Your task to perform on an android device: Google the capital of the United States Image 0: 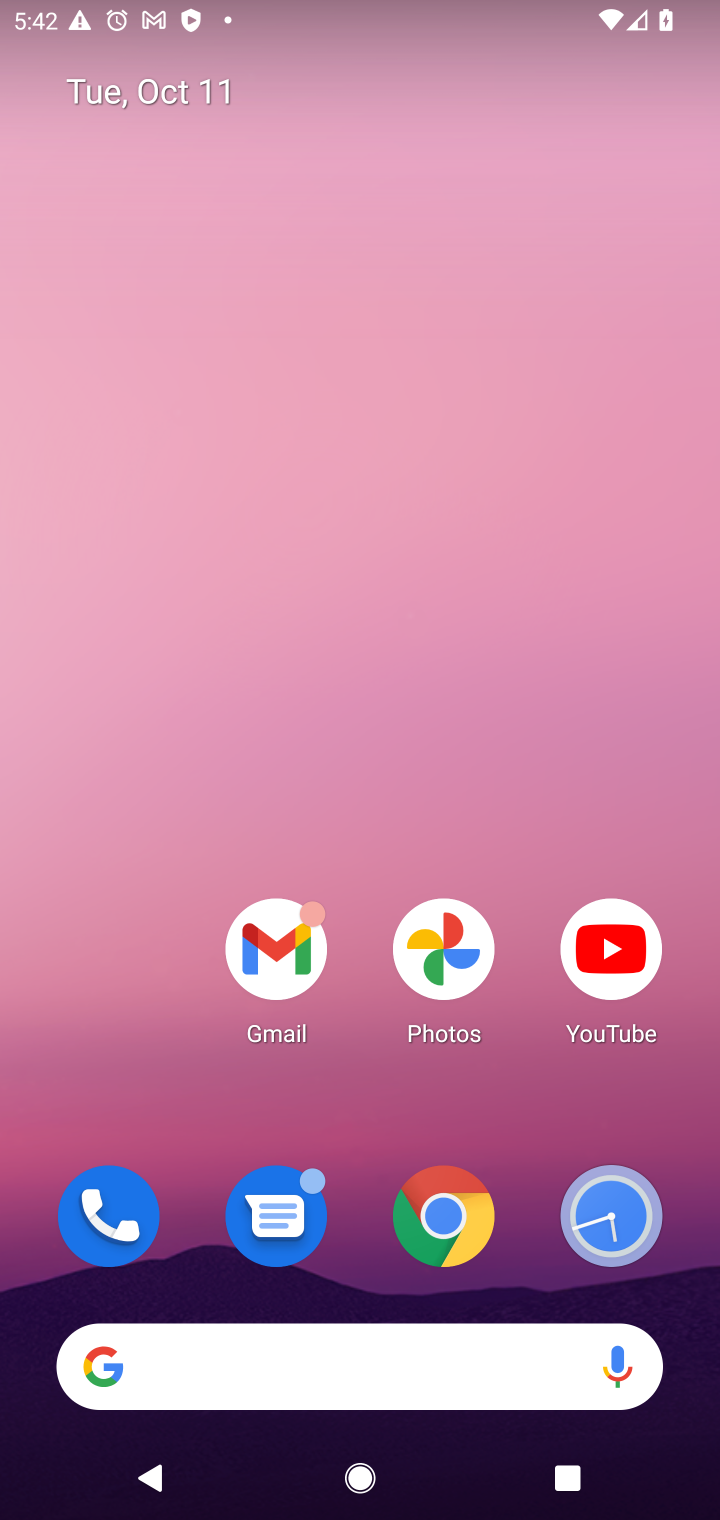
Step 0: click (444, 1219)
Your task to perform on an android device: Google the capital of the United States Image 1: 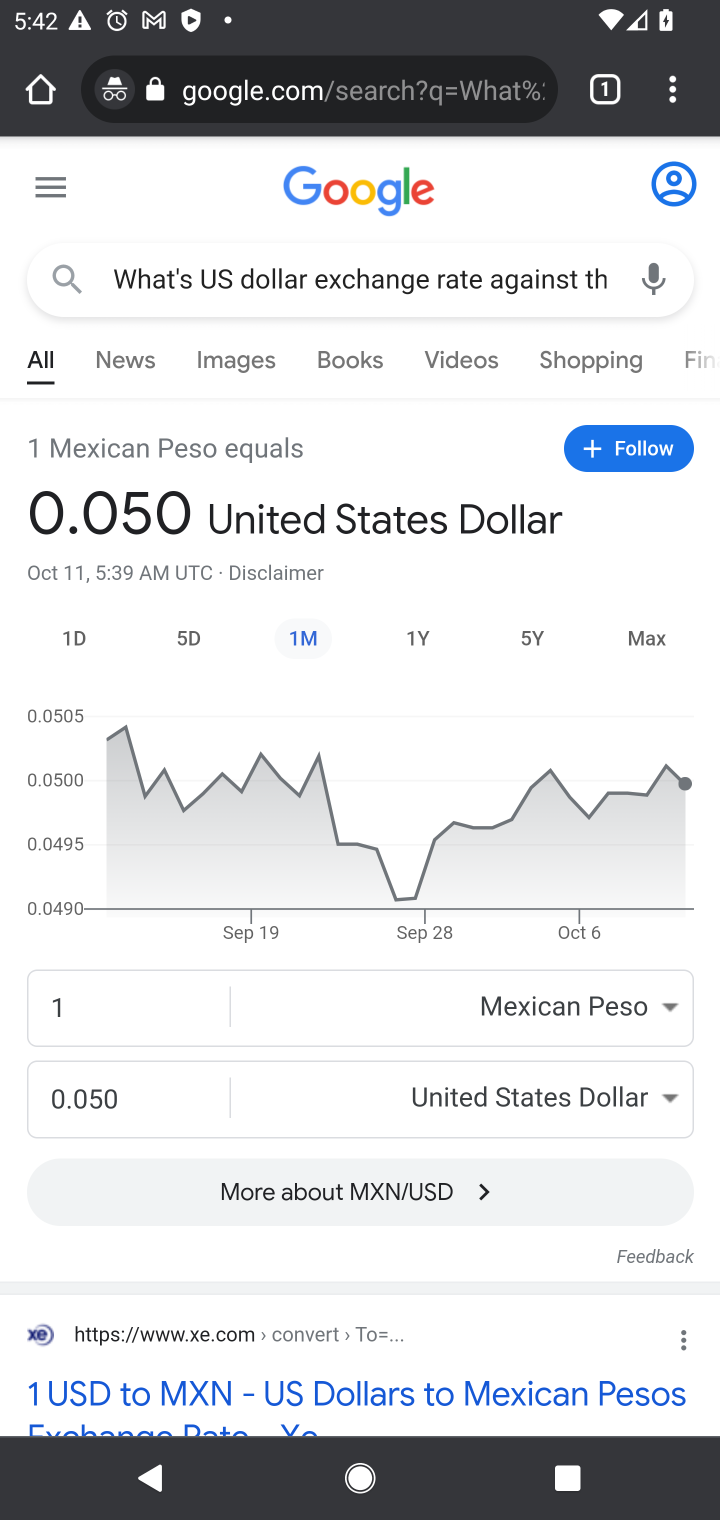
Step 1: click (383, 282)
Your task to perform on an android device: Google the capital of the United States Image 2: 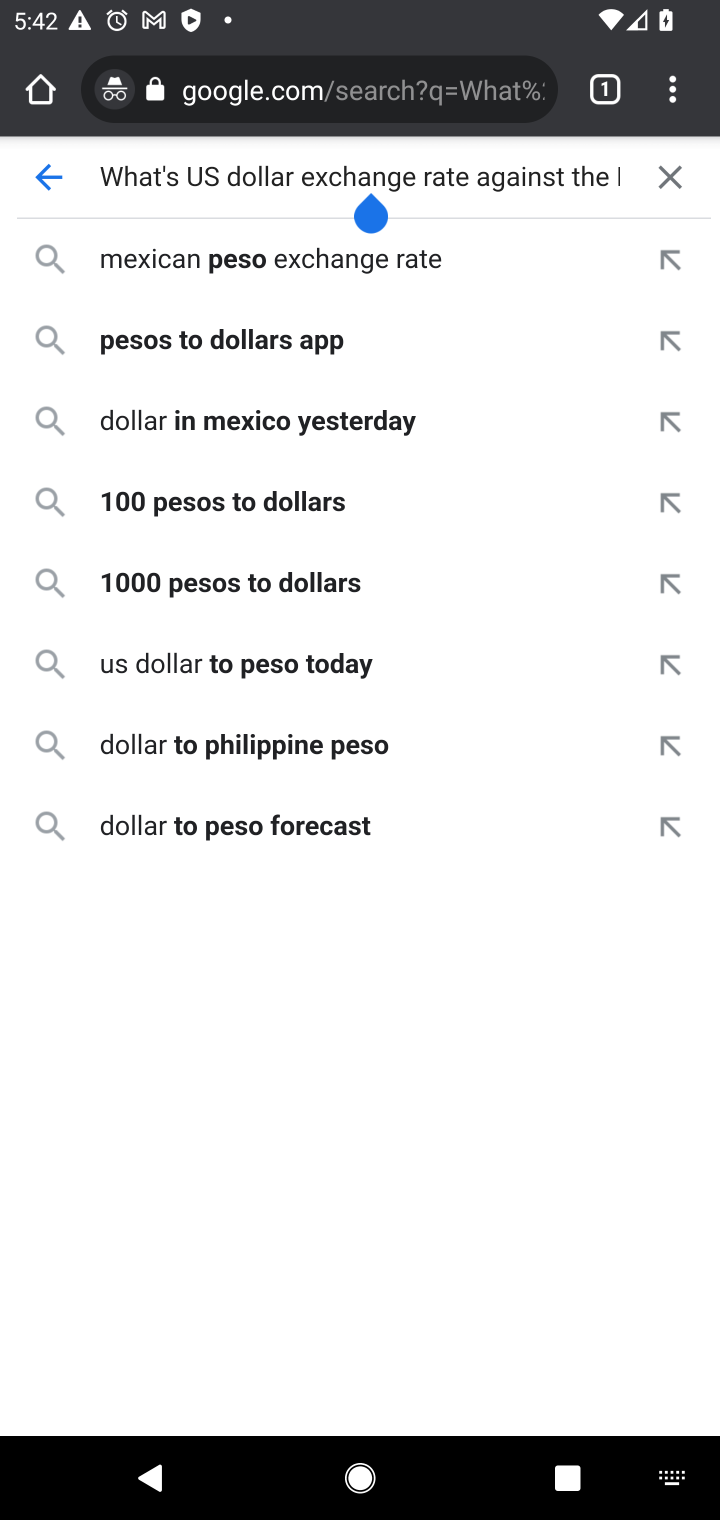
Step 2: click (676, 183)
Your task to perform on an android device: Google the capital of the United States Image 3: 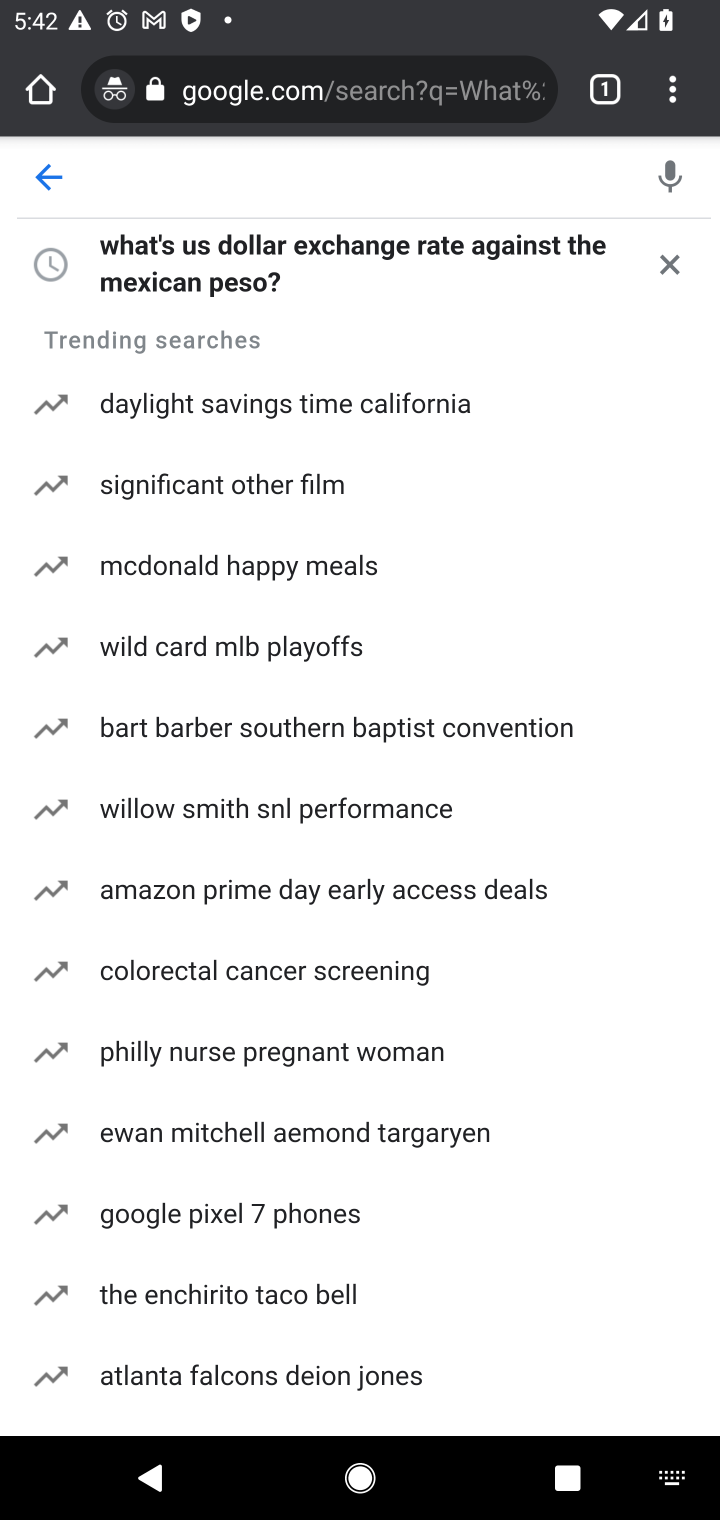
Step 3: type "capital of united states"
Your task to perform on an android device: Google the capital of the United States Image 4: 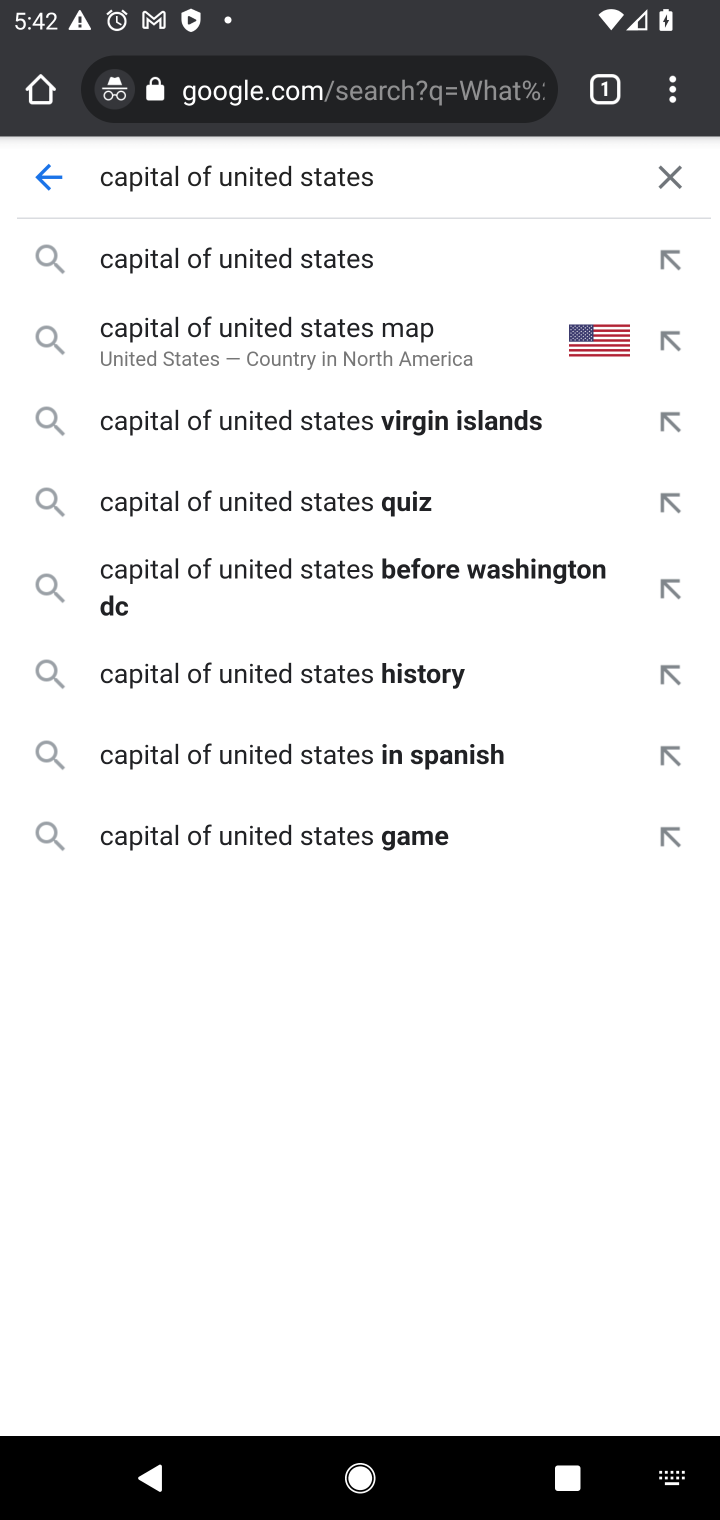
Step 4: press enter
Your task to perform on an android device: Google the capital of the United States Image 5: 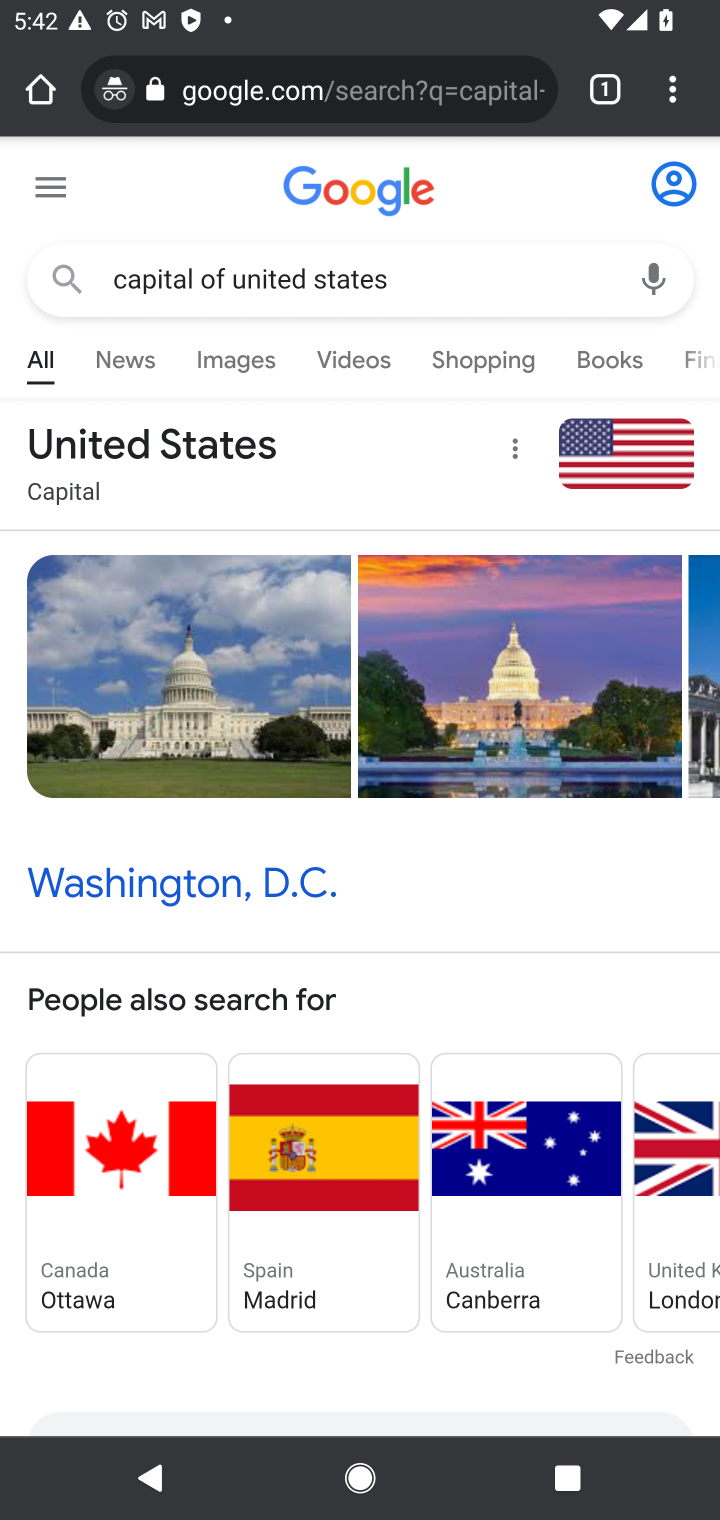
Step 5: task complete